Your task to perform on an android device: allow cookies in the chrome app Image 0: 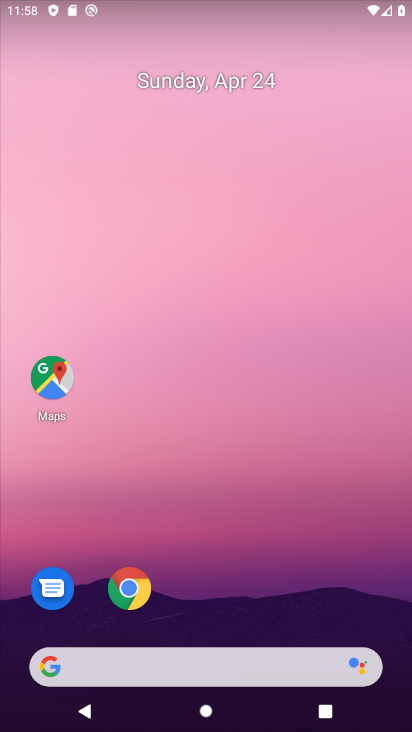
Step 0: drag from (229, 590) to (190, 140)
Your task to perform on an android device: allow cookies in the chrome app Image 1: 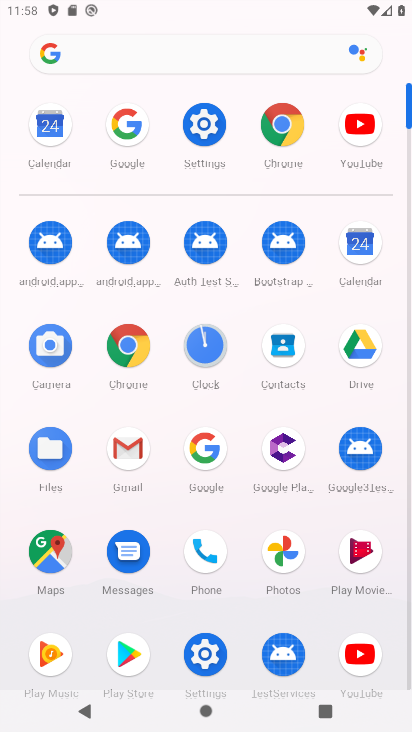
Step 1: click (282, 130)
Your task to perform on an android device: allow cookies in the chrome app Image 2: 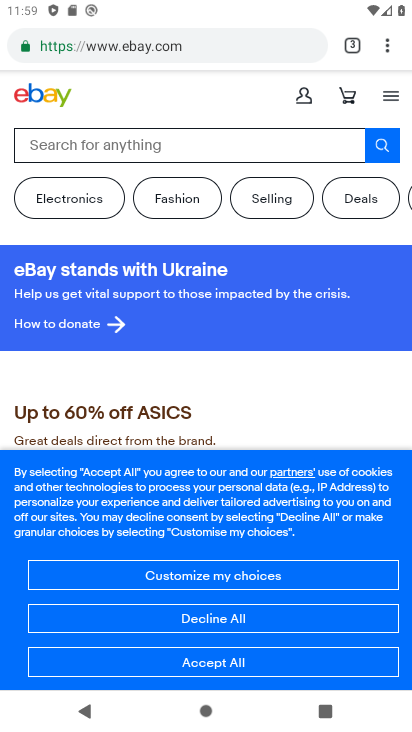
Step 2: click (384, 48)
Your task to perform on an android device: allow cookies in the chrome app Image 3: 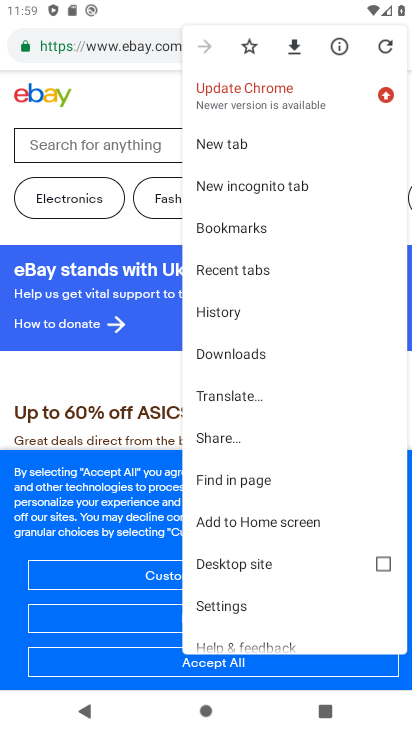
Step 3: click (228, 599)
Your task to perform on an android device: allow cookies in the chrome app Image 4: 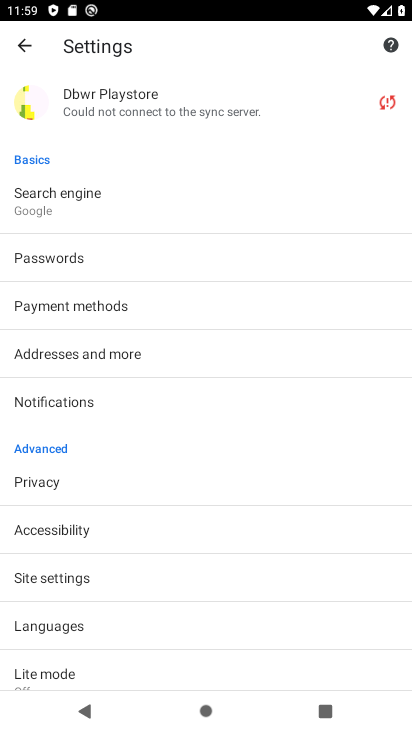
Step 4: click (73, 582)
Your task to perform on an android device: allow cookies in the chrome app Image 5: 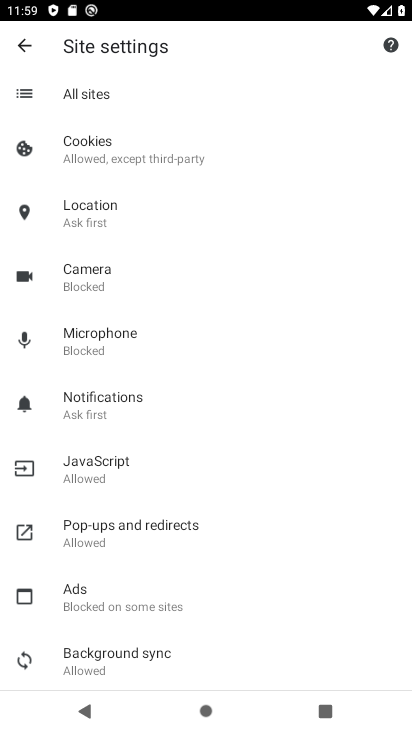
Step 5: click (120, 157)
Your task to perform on an android device: allow cookies in the chrome app Image 6: 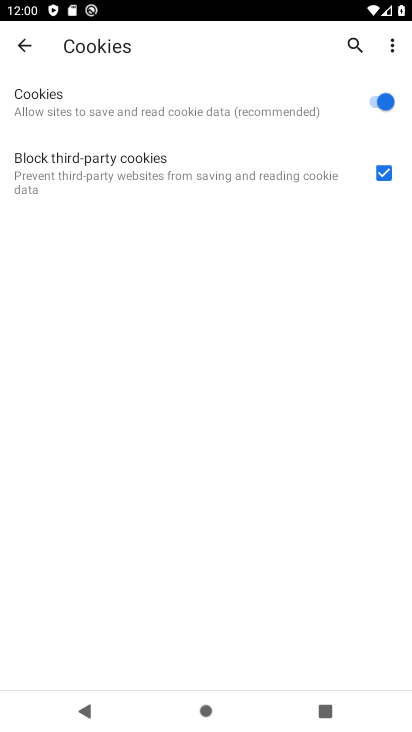
Step 6: click (75, 101)
Your task to perform on an android device: allow cookies in the chrome app Image 7: 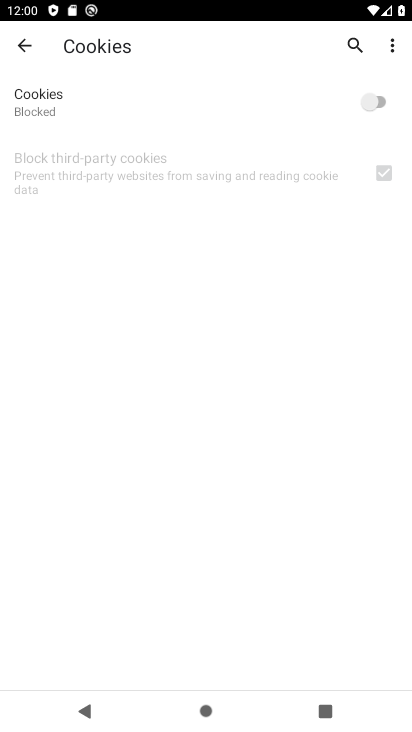
Step 7: click (384, 93)
Your task to perform on an android device: allow cookies in the chrome app Image 8: 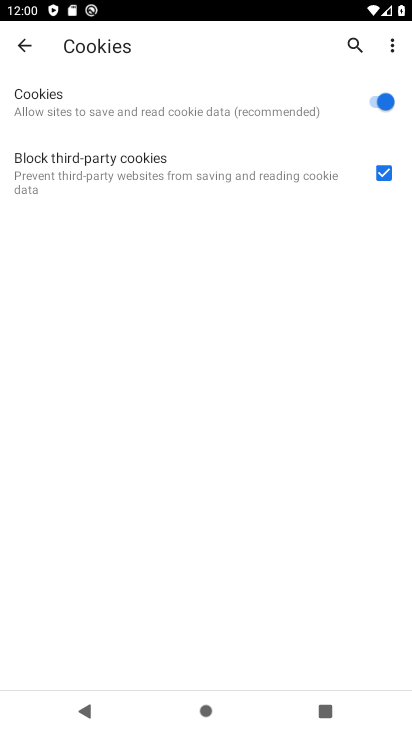
Step 8: task complete